Your task to perform on an android device: What's the weather going to be tomorrow? Image 0: 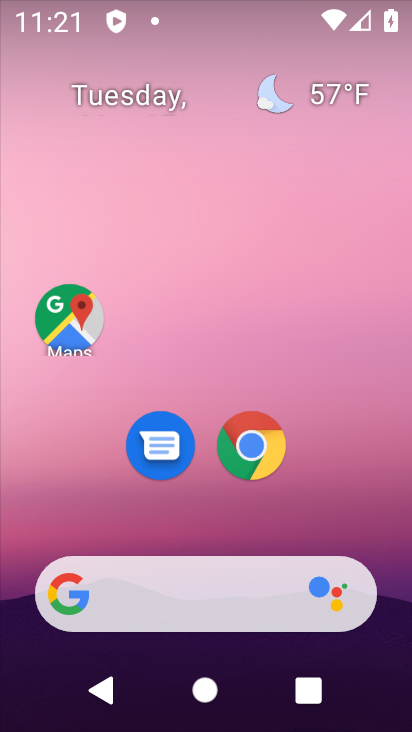
Step 0: click (203, 602)
Your task to perform on an android device: What's the weather going to be tomorrow? Image 1: 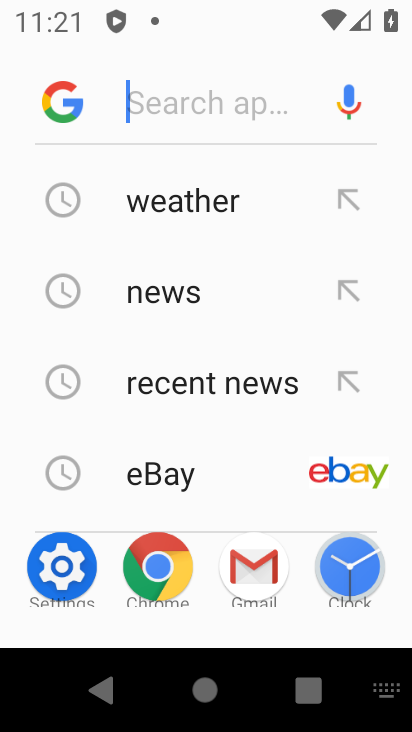
Step 1: click (213, 194)
Your task to perform on an android device: What's the weather going to be tomorrow? Image 2: 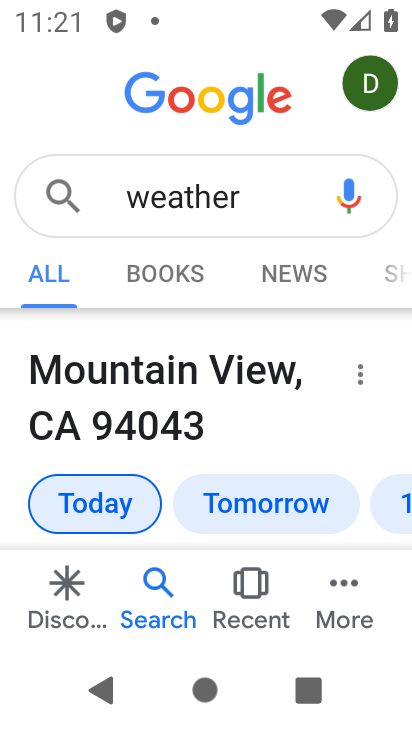
Step 2: drag from (315, 433) to (320, 294)
Your task to perform on an android device: What's the weather going to be tomorrow? Image 3: 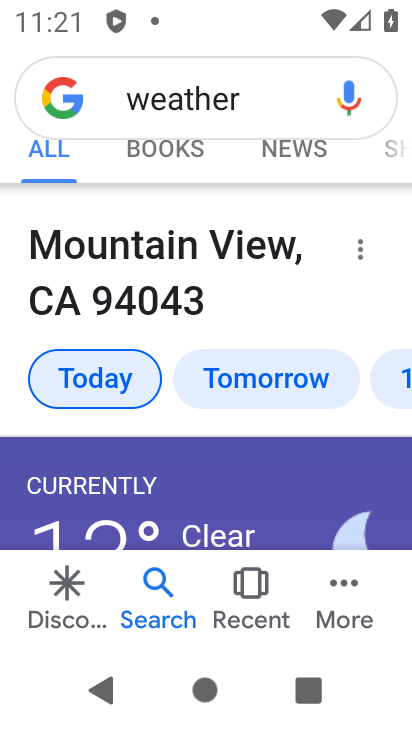
Step 3: click (272, 366)
Your task to perform on an android device: What's the weather going to be tomorrow? Image 4: 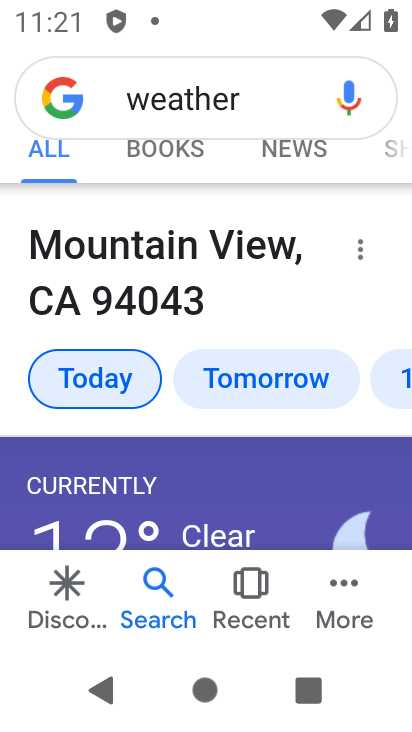
Step 4: click (267, 377)
Your task to perform on an android device: What's the weather going to be tomorrow? Image 5: 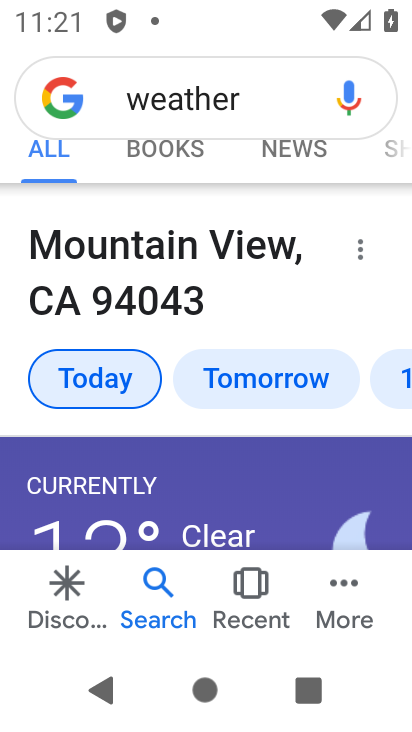
Step 5: drag from (236, 487) to (229, 294)
Your task to perform on an android device: What's the weather going to be tomorrow? Image 6: 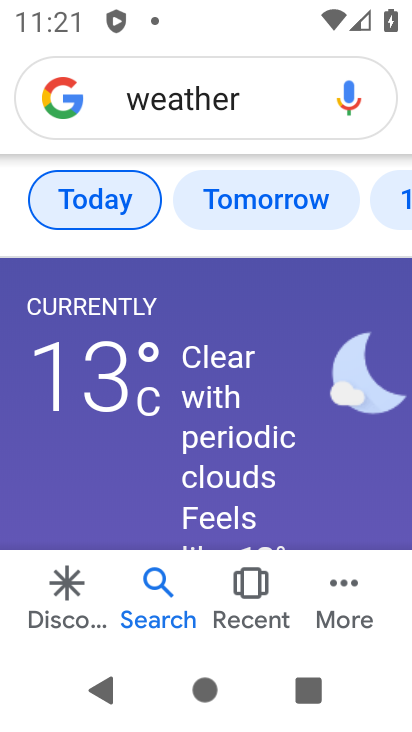
Step 6: click (248, 202)
Your task to perform on an android device: What's the weather going to be tomorrow? Image 7: 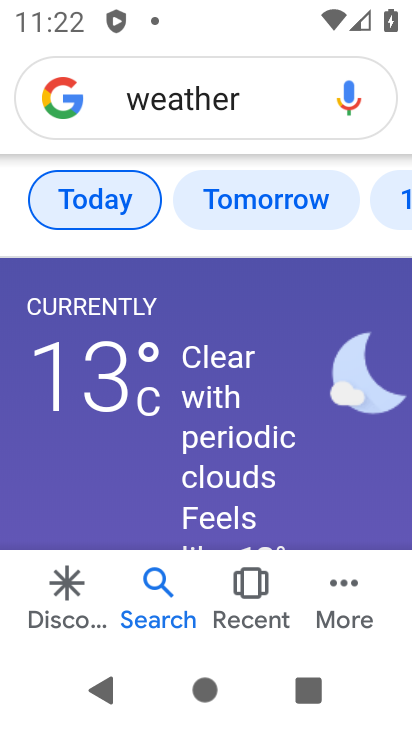
Step 7: task complete